Your task to perform on an android device: Search for vegetarian restaurants on Maps Image 0: 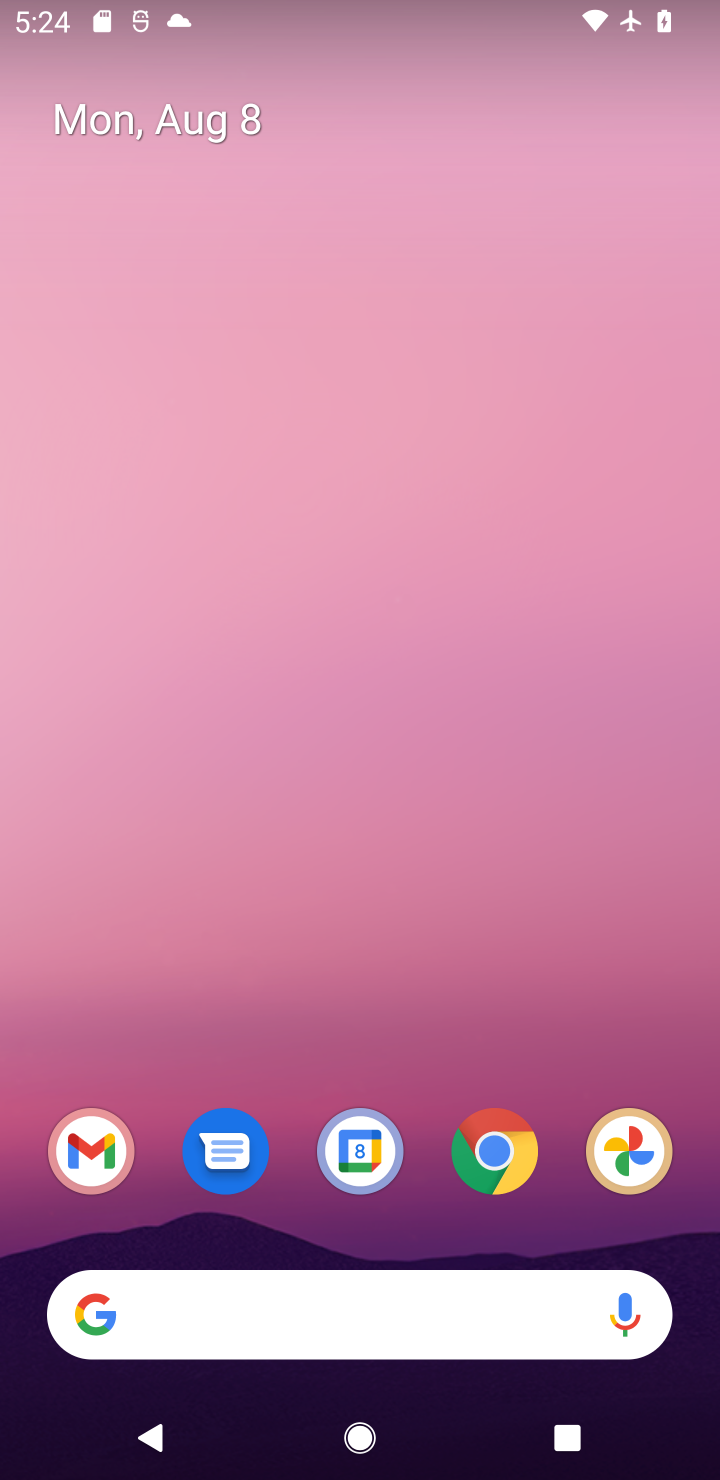
Step 0: drag from (335, 789) to (337, 194)
Your task to perform on an android device: Search for vegetarian restaurants on Maps Image 1: 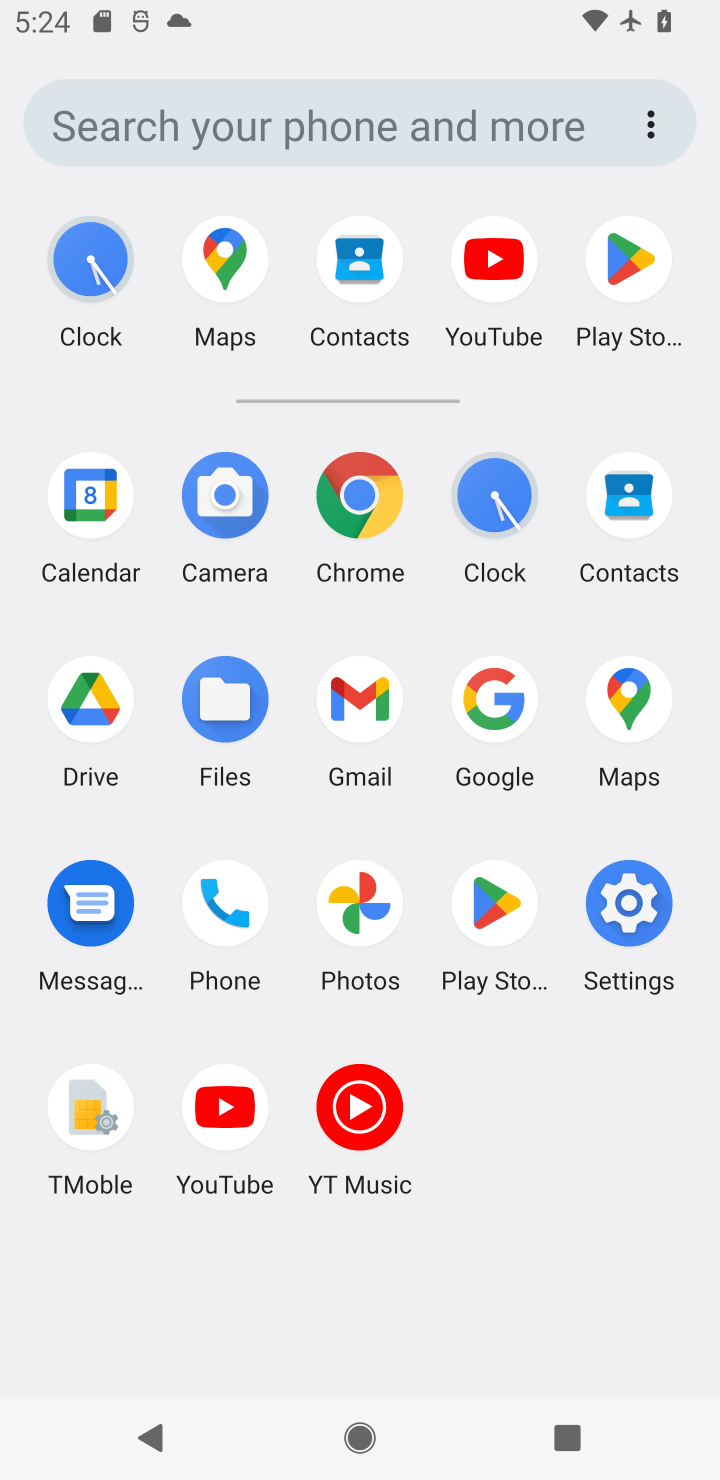
Step 1: click (619, 717)
Your task to perform on an android device: Search for vegetarian restaurants on Maps Image 2: 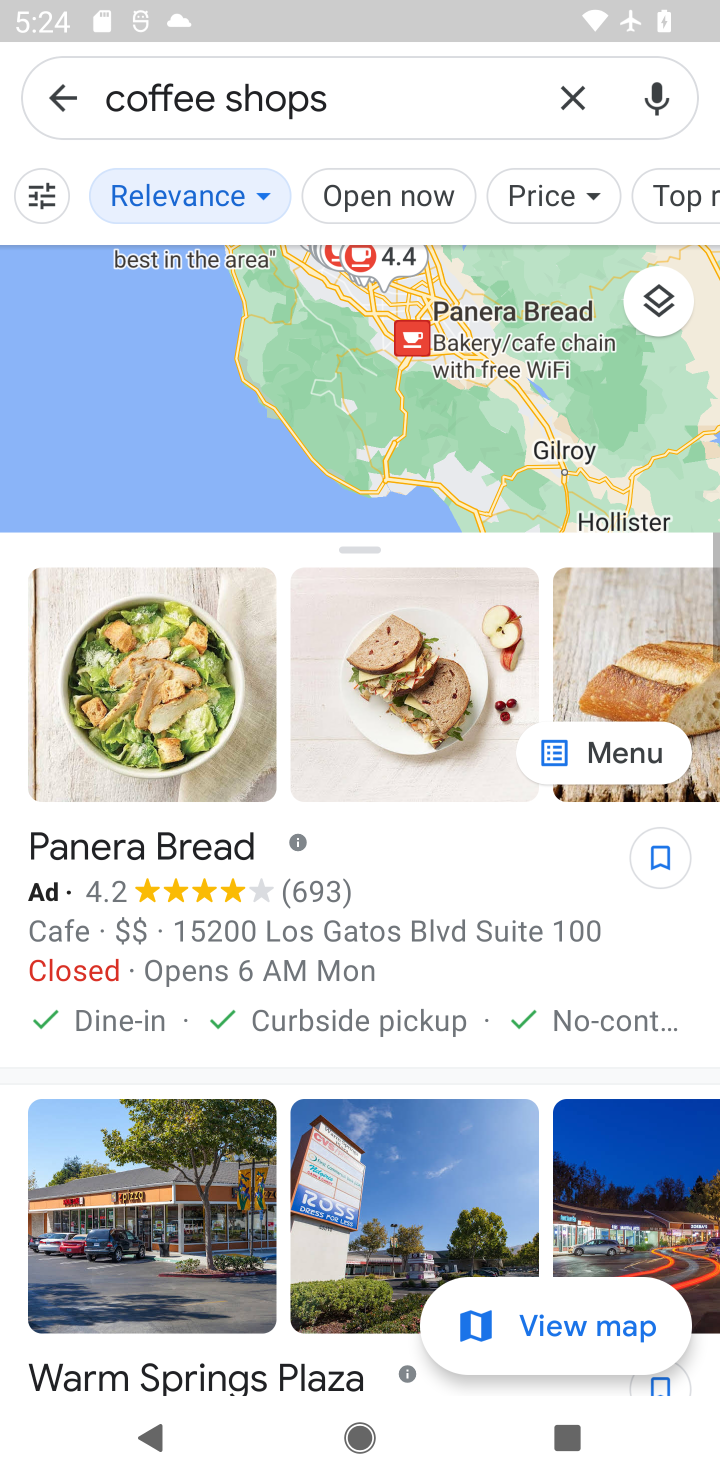
Step 2: click (564, 115)
Your task to perform on an android device: Search for vegetarian restaurants on Maps Image 3: 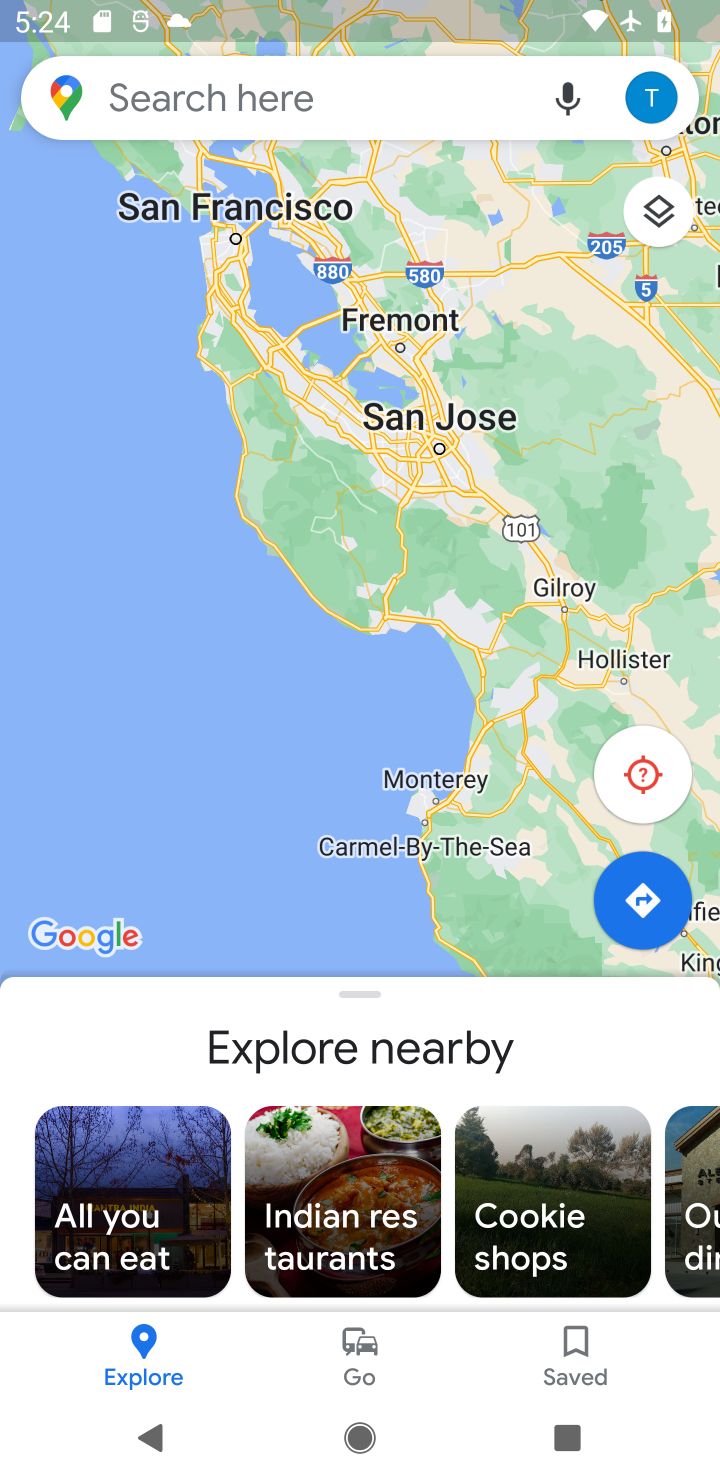
Step 3: click (144, 105)
Your task to perform on an android device: Search for vegetarian restaurants on Maps Image 4: 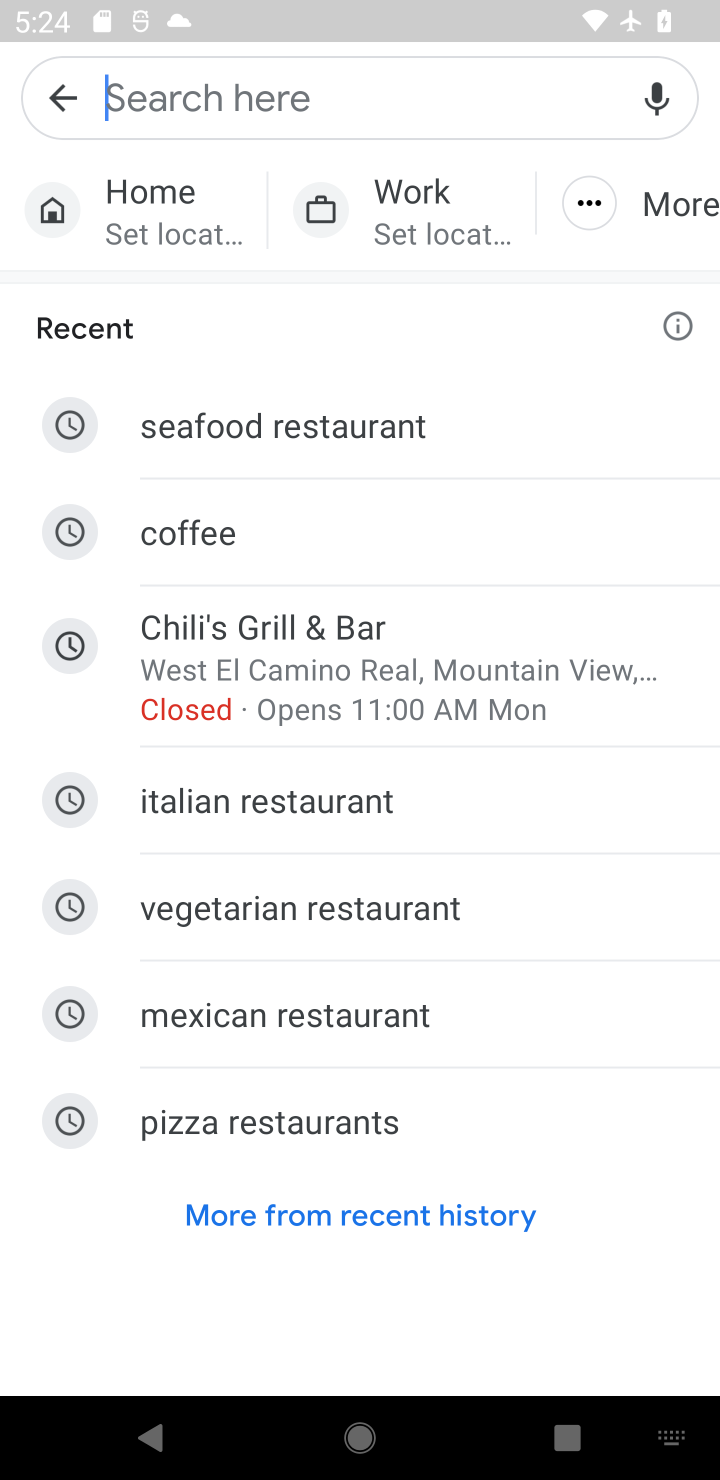
Step 4: click (197, 921)
Your task to perform on an android device: Search for vegetarian restaurants on Maps Image 5: 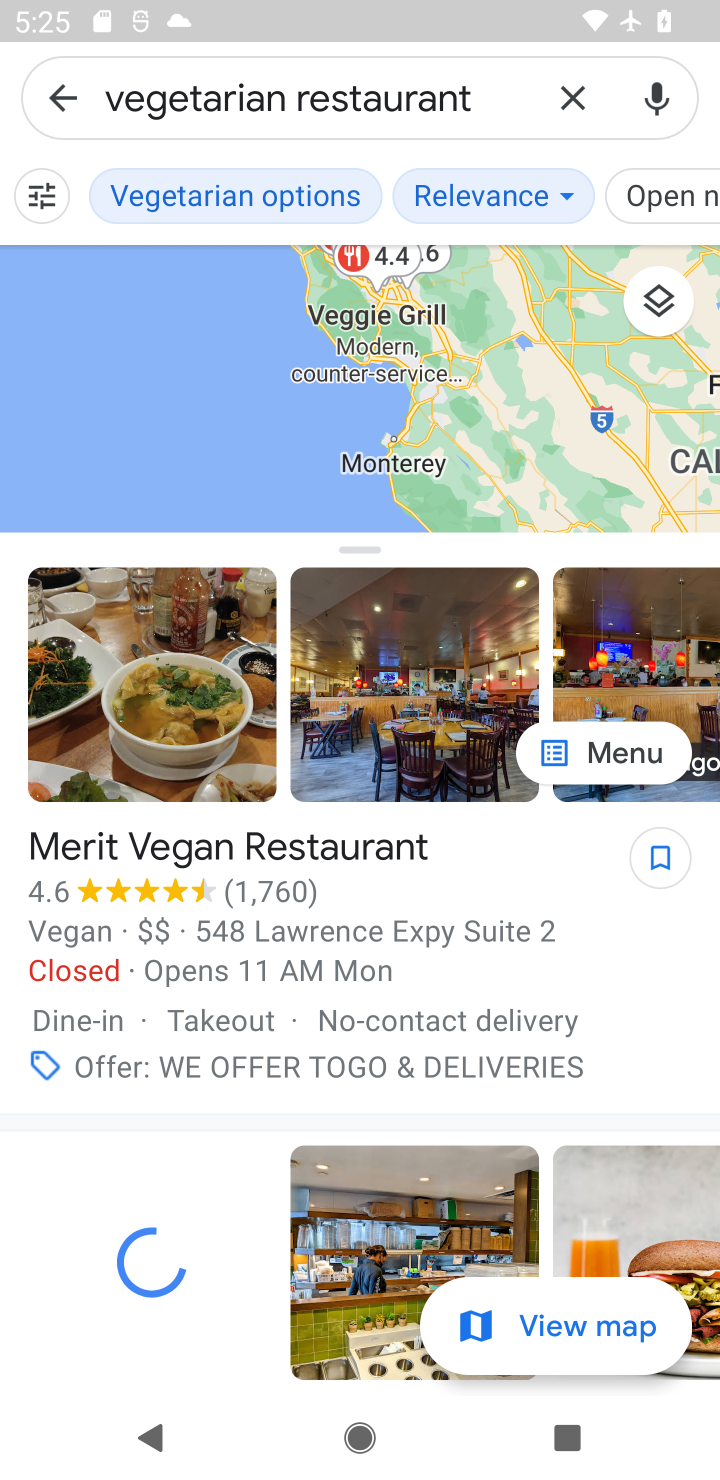
Step 5: task complete